Your task to perform on an android device: turn off priority inbox in the gmail app Image 0: 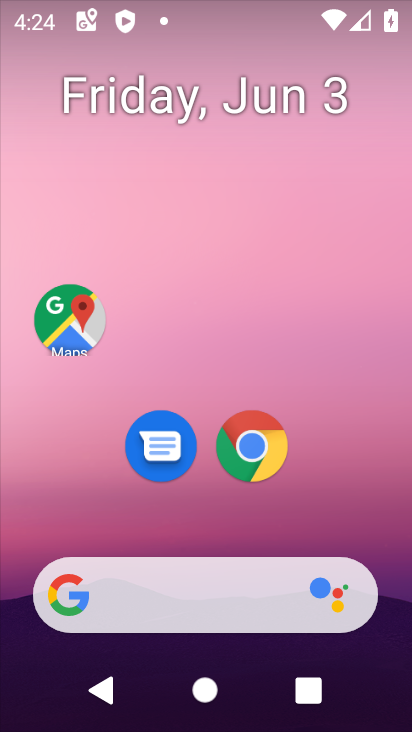
Step 0: task complete